Your task to perform on an android device: Go to sound settings Image 0: 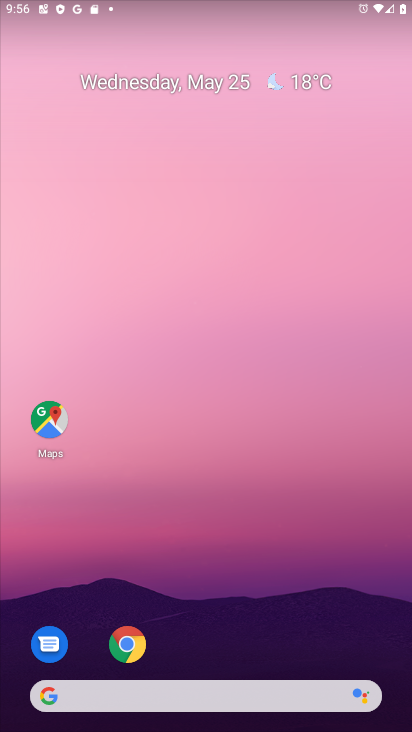
Step 0: press home button
Your task to perform on an android device: Go to sound settings Image 1: 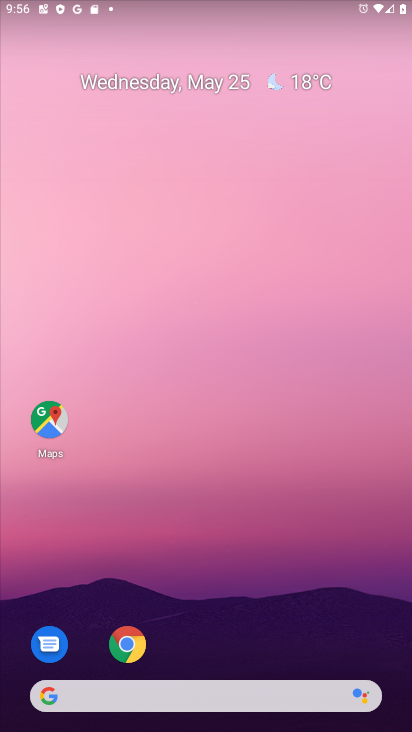
Step 1: drag from (206, 665) to (202, 25)
Your task to perform on an android device: Go to sound settings Image 2: 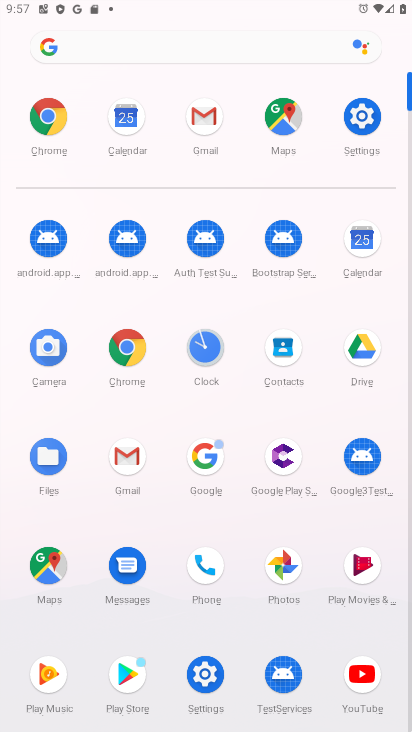
Step 2: click (358, 107)
Your task to perform on an android device: Go to sound settings Image 3: 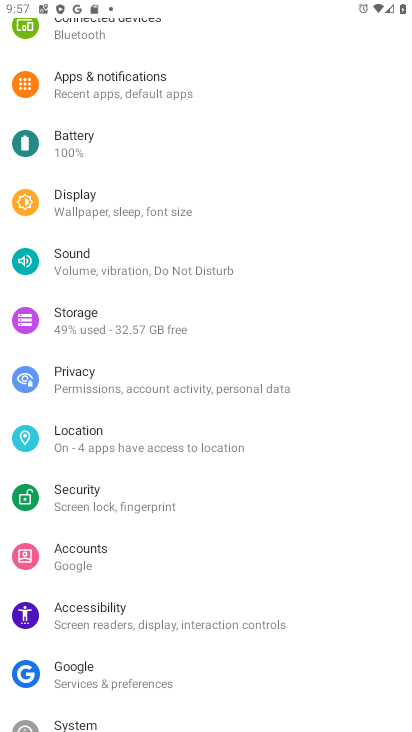
Step 3: click (96, 250)
Your task to perform on an android device: Go to sound settings Image 4: 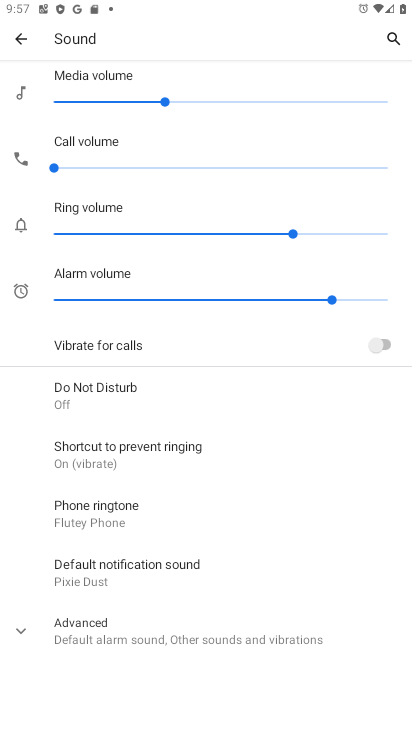
Step 4: click (23, 627)
Your task to perform on an android device: Go to sound settings Image 5: 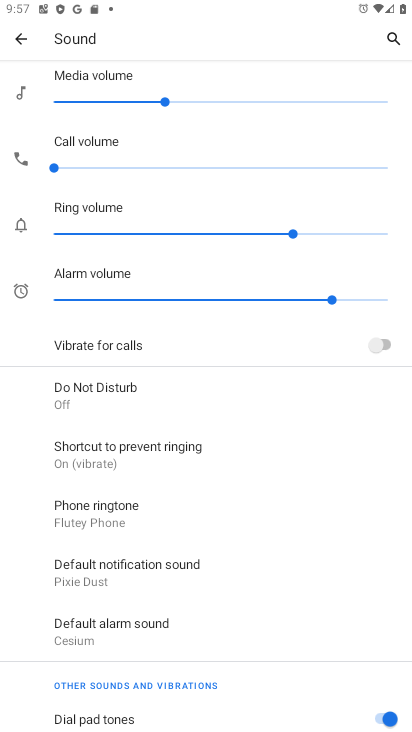
Step 5: task complete